Your task to perform on an android device: Show me the alarms in the clock app Image 0: 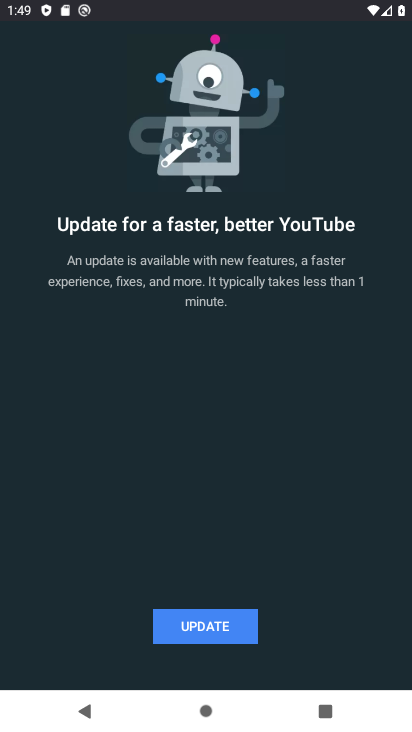
Step 0: press home button
Your task to perform on an android device: Show me the alarms in the clock app Image 1: 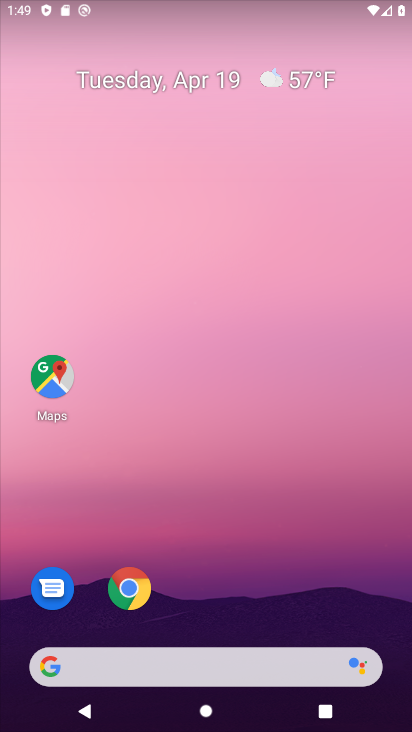
Step 1: drag from (271, 534) to (302, 38)
Your task to perform on an android device: Show me the alarms in the clock app Image 2: 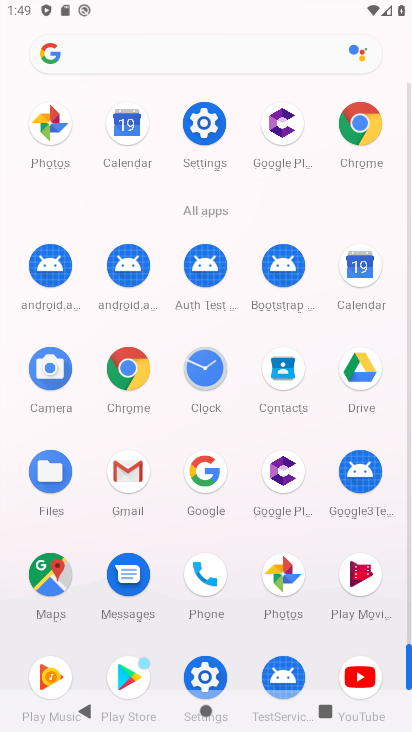
Step 2: click (206, 372)
Your task to perform on an android device: Show me the alarms in the clock app Image 3: 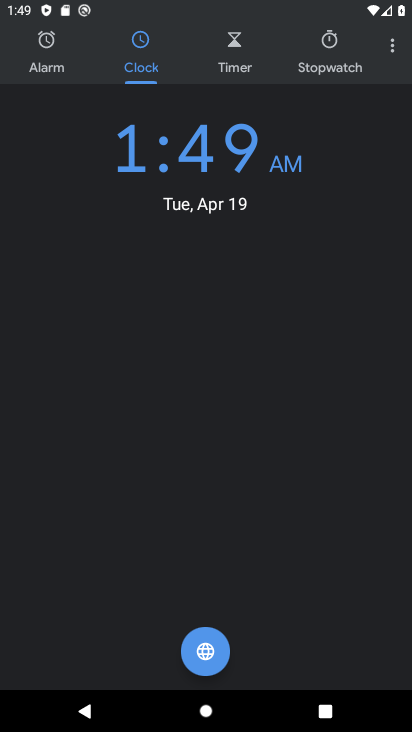
Step 3: click (44, 45)
Your task to perform on an android device: Show me the alarms in the clock app Image 4: 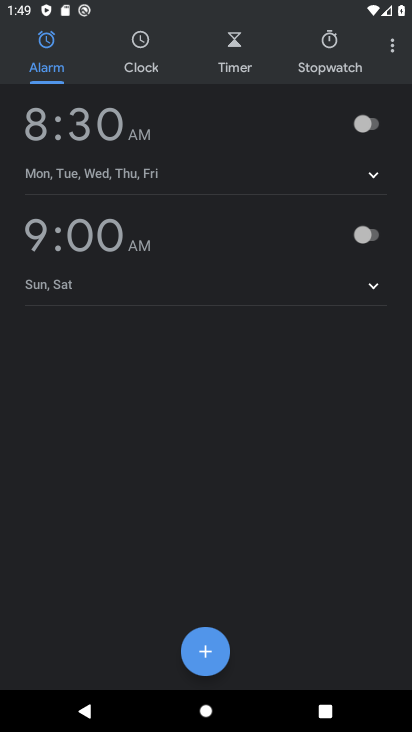
Step 4: task complete